Your task to perform on an android device: toggle sleep mode Image 0: 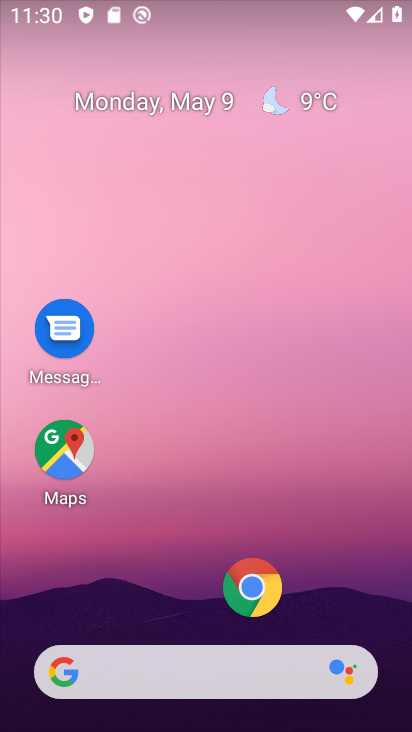
Step 0: drag from (162, 631) to (178, 255)
Your task to perform on an android device: toggle sleep mode Image 1: 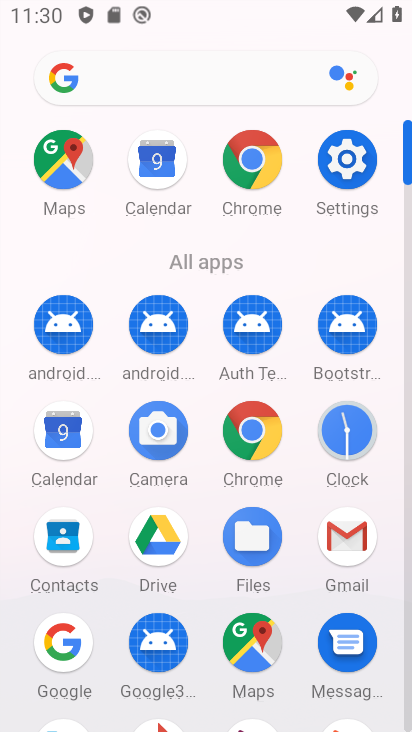
Step 1: click (348, 154)
Your task to perform on an android device: toggle sleep mode Image 2: 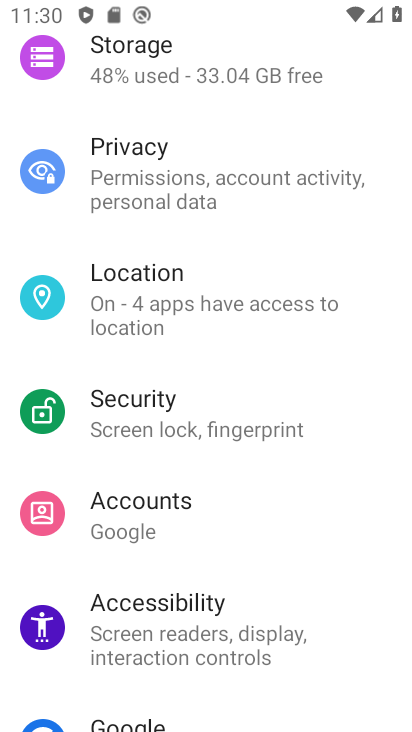
Step 2: drag from (235, 187) to (208, 507)
Your task to perform on an android device: toggle sleep mode Image 3: 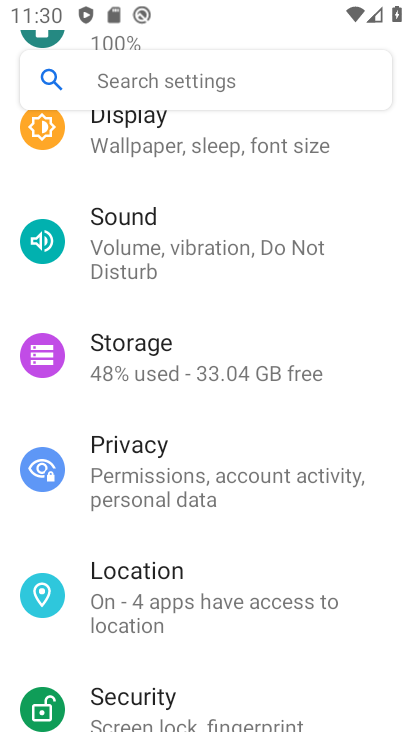
Step 3: drag from (192, 228) to (176, 469)
Your task to perform on an android device: toggle sleep mode Image 4: 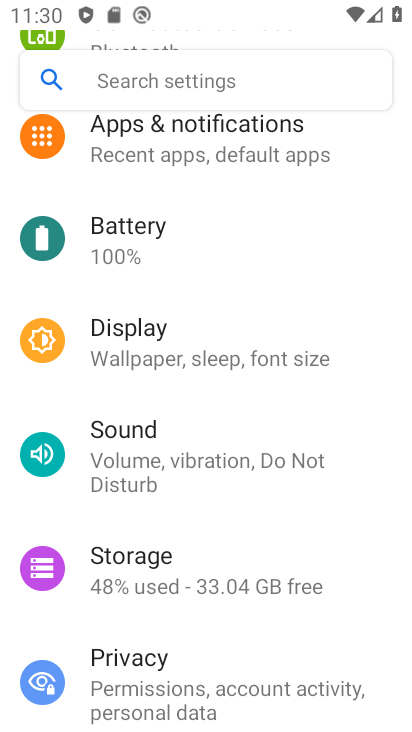
Step 4: drag from (145, 195) to (154, 507)
Your task to perform on an android device: toggle sleep mode Image 5: 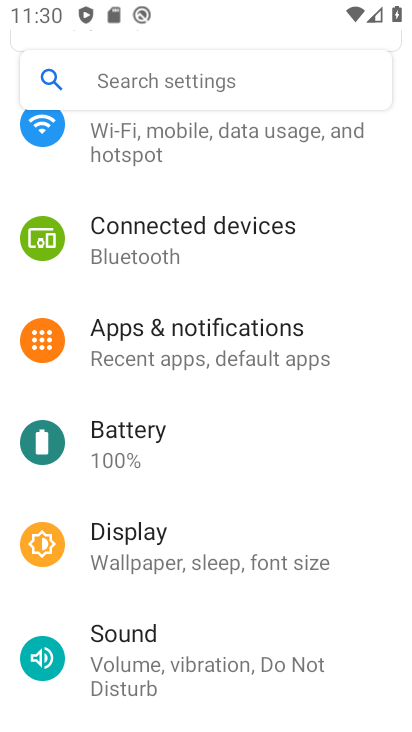
Step 5: click (192, 556)
Your task to perform on an android device: toggle sleep mode Image 6: 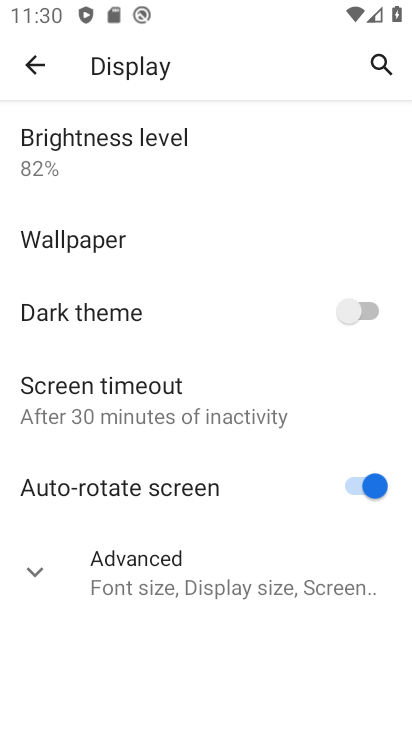
Step 6: task complete